Your task to perform on an android device: turn off notifications settings in the gmail app Image 0: 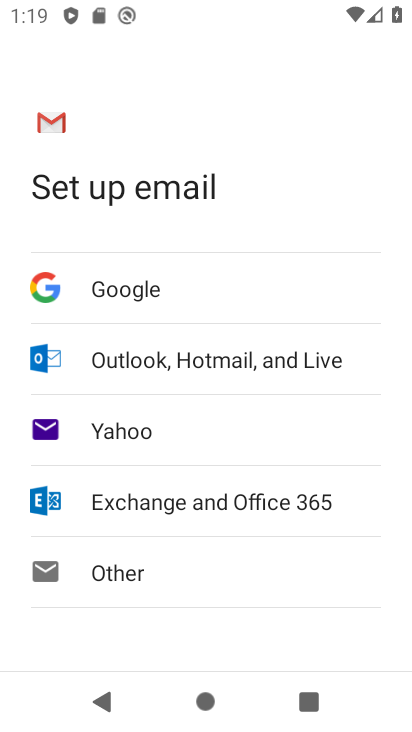
Step 0: press home button
Your task to perform on an android device: turn off notifications settings in the gmail app Image 1: 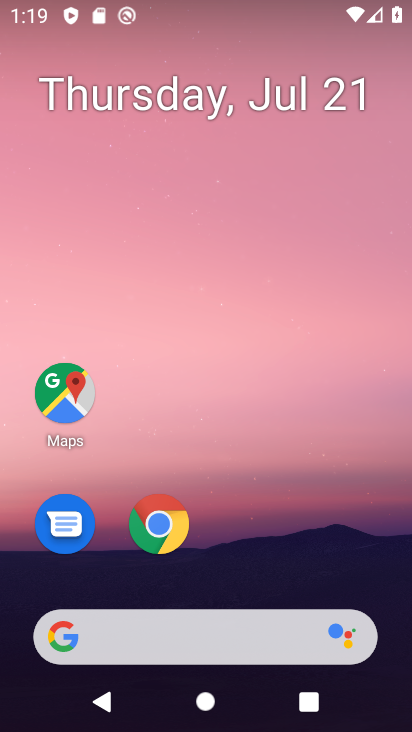
Step 1: drag from (258, 540) to (235, 35)
Your task to perform on an android device: turn off notifications settings in the gmail app Image 2: 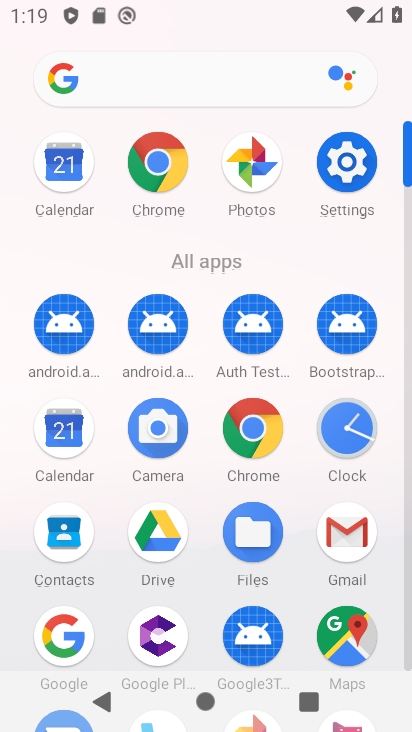
Step 2: click (349, 526)
Your task to perform on an android device: turn off notifications settings in the gmail app Image 3: 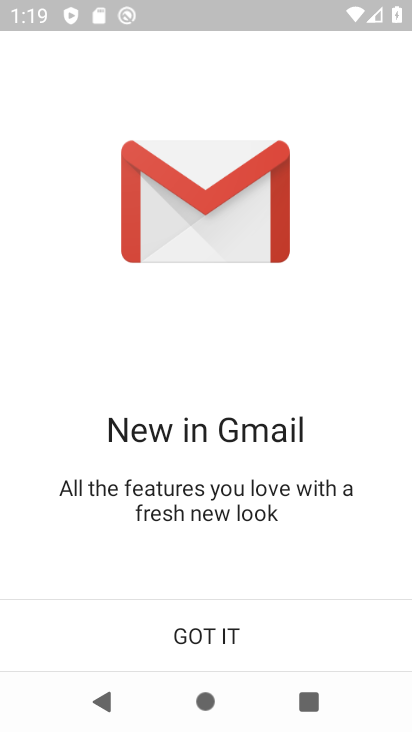
Step 3: click (230, 632)
Your task to perform on an android device: turn off notifications settings in the gmail app Image 4: 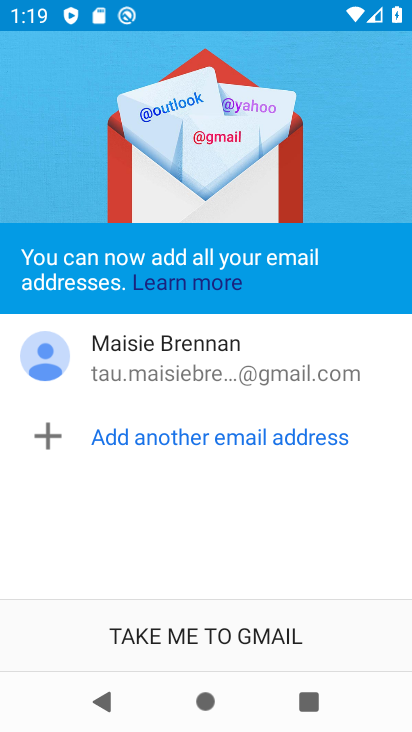
Step 4: click (230, 632)
Your task to perform on an android device: turn off notifications settings in the gmail app Image 5: 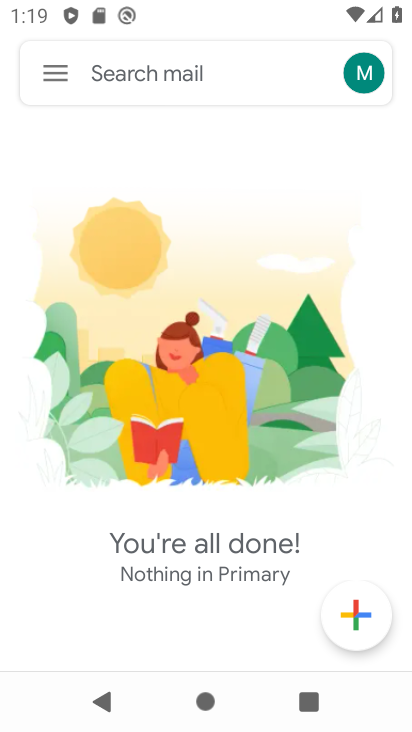
Step 5: click (61, 69)
Your task to perform on an android device: turn off notifications settings in the gmail app Image 6: 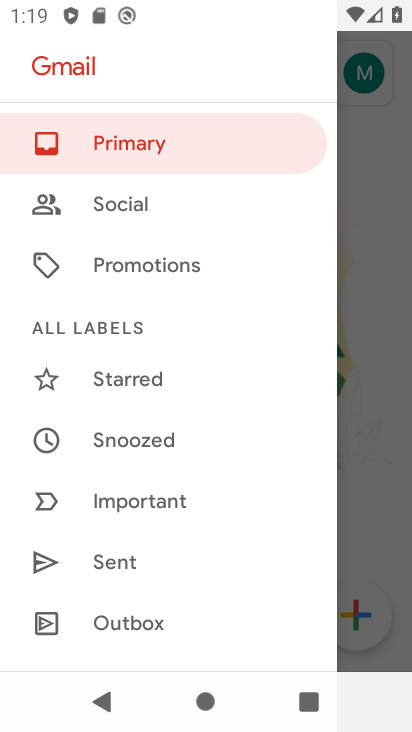
Step 6: drag from (160, 526) to (246, 0)
Your task to perform on an android device: turn off notifications settings in the gmail app Image 7: 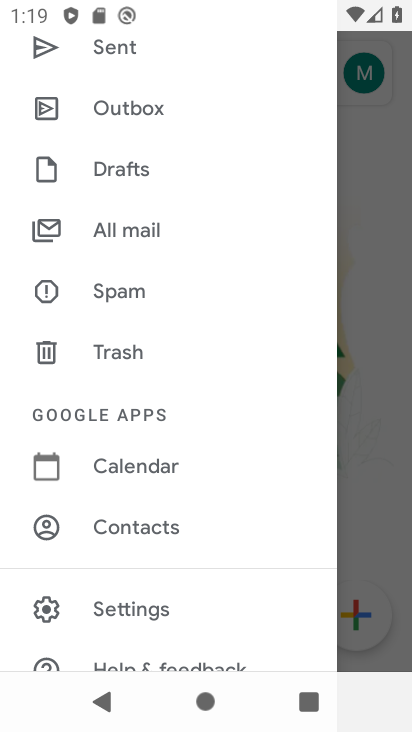
Step 7: click (166, 614)
Your task to perform on an android device: turn off notifications settings in the gmail app Image 8: 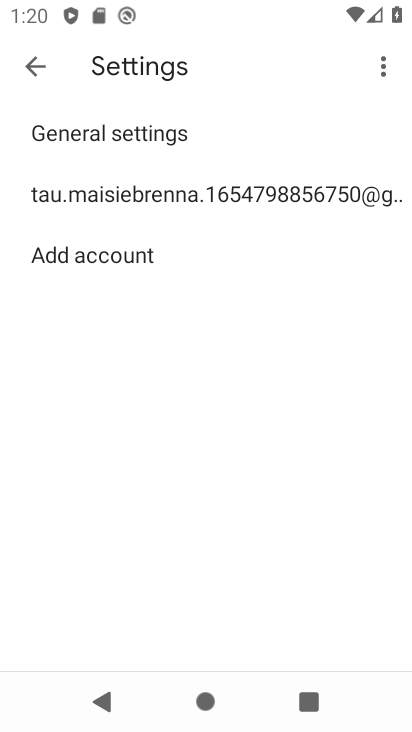
Step 8: click (228, 185)
Your task to perform on an android device: turn off notifications settings in the gmail app Image 9: 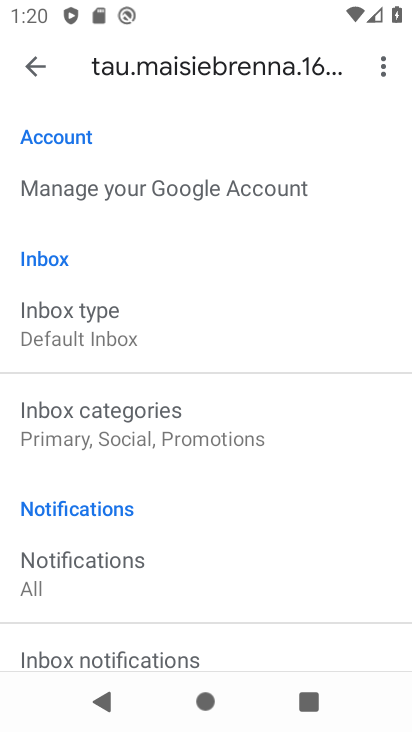
Step 9: drag from (205, 494) to (284, 10)
Your task to perform on an android device: turn off notifications settings in the gmail app Image 10: 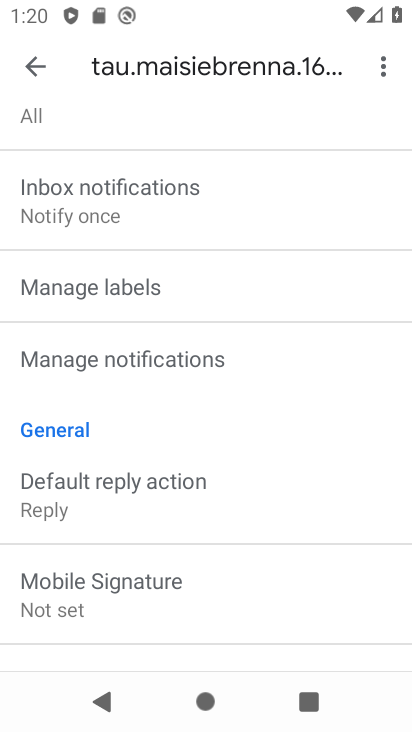
Step 10: click (204, 351)
Your task to perform on an android device: turn off notifications settings in the gmail app Image 11: 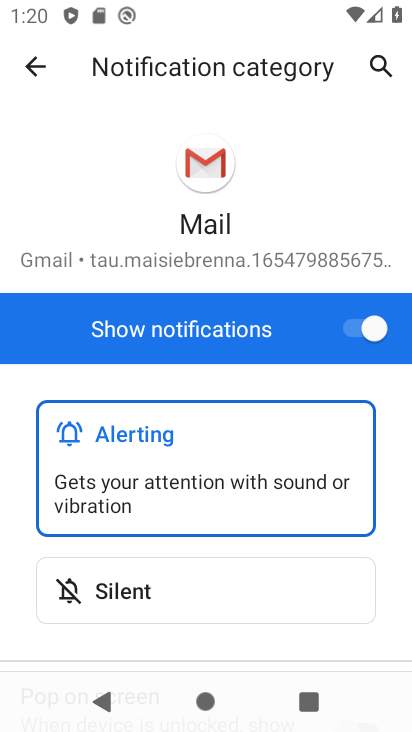
Step 11: click (364, 324)
Your task to perform on an android device: turn off notifications settings in the gmail app Image 12: 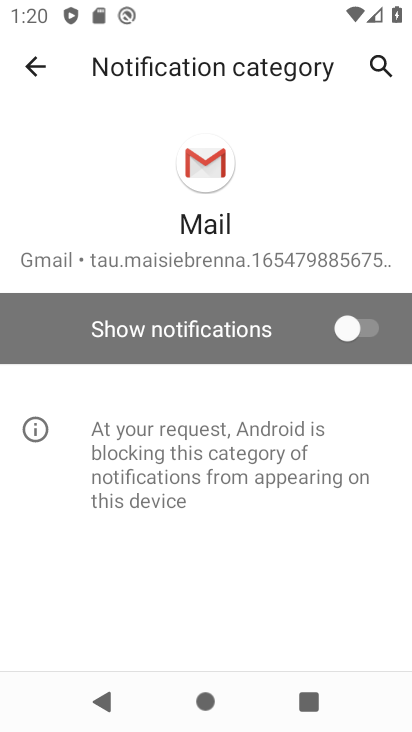
Step 12: task complete